Your task to perform on an android device: change the clock display to show seconds Image 0: 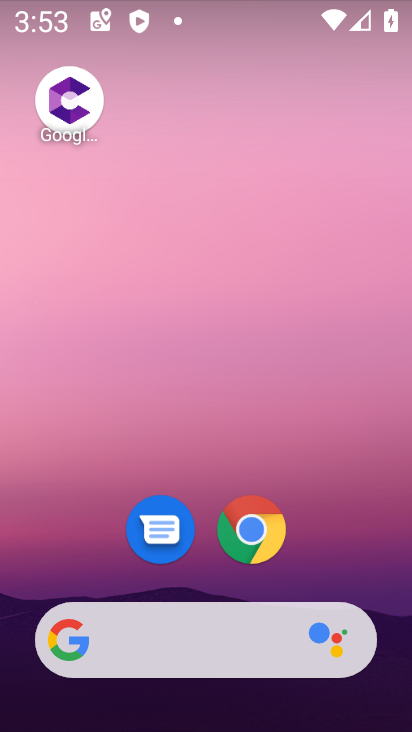
Step 0: drag from (238, 719) to (230, 125)
Your task to perform on an android device: change the clock display to show seconds Image 1: 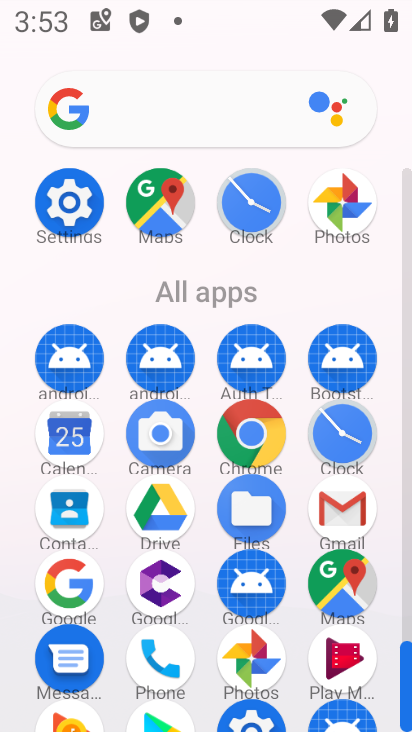
Step 1: click (338, 442)
Your task to perform on an android device: change the clock display to show seconds Image 2: 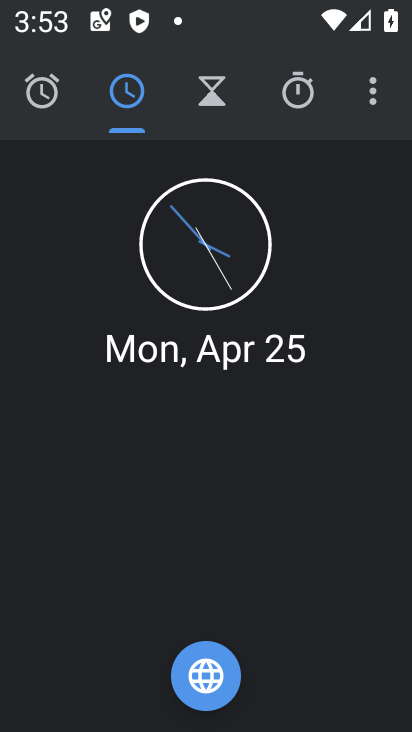
Step 2: click (376, 96)
Your task to perform on an android device: change the clock display to show seconds Image 3: 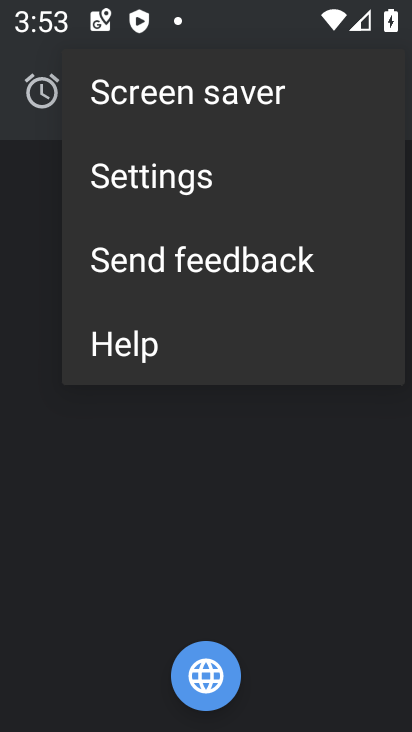
Step 3: click (161, 172)
Your task to perform on an android device: change the clock display to show seconds Image 4: 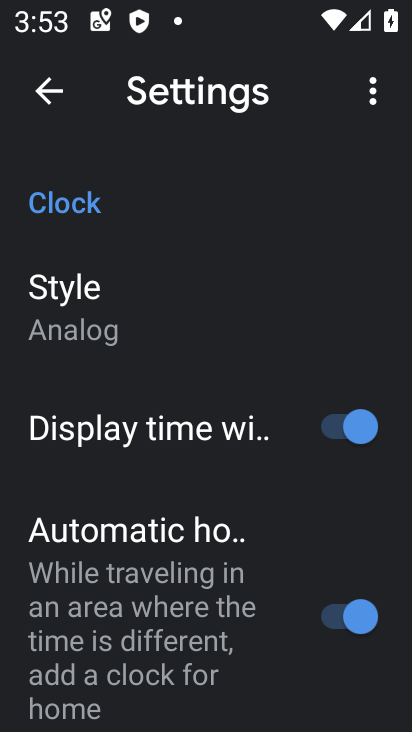
Step 4: task complete